Your task to perform on an android device: Open battery settings Image 0: 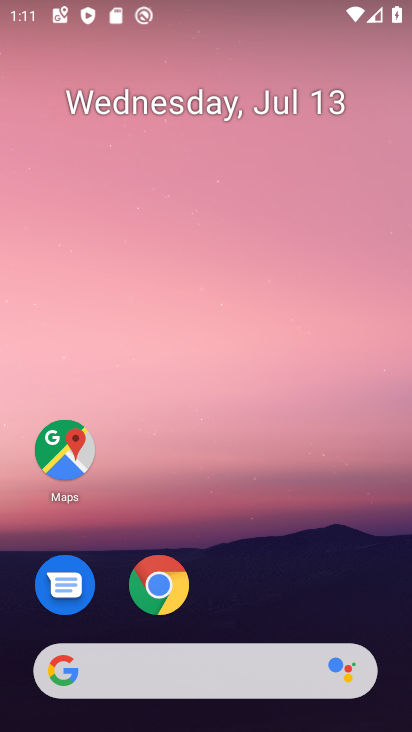
Step 0: drag from (221, 646) to (340, 54)
Your task to perform on an android device: Open battery settings Image 1: 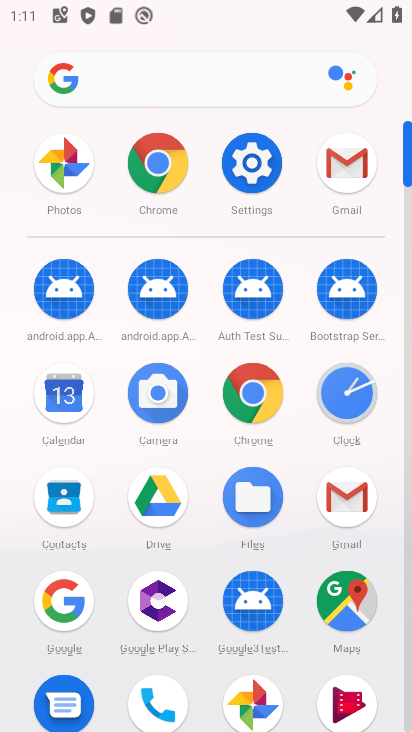
Step 1: click (267, 173)
Your task to perform on an android device: Open battery settings Image 2: 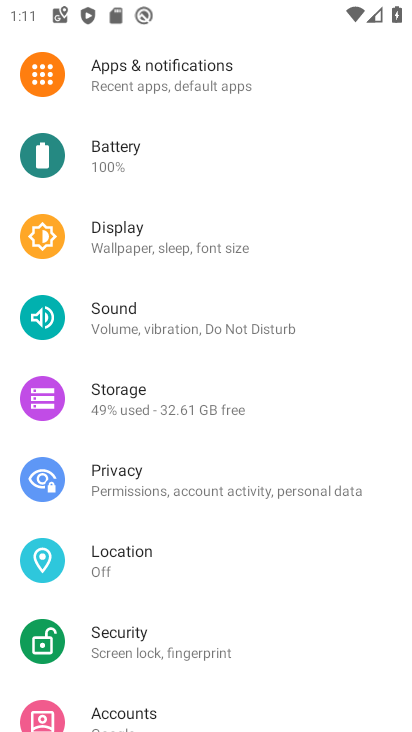
Step 2: click (129, 163)
Your task to perform on an android device: Open battery settings Image 3: 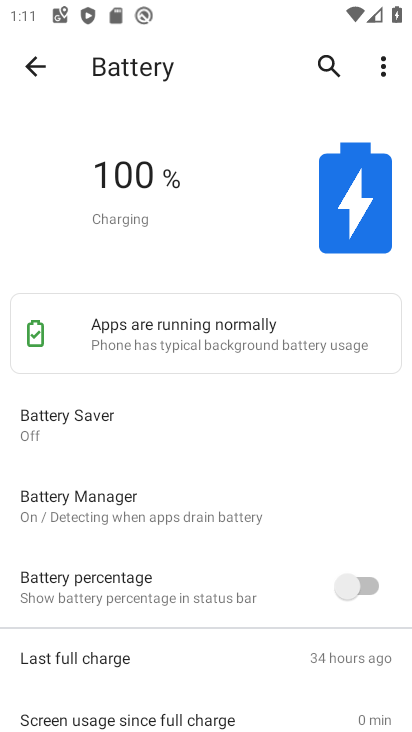
Step 3: task complete